Your task to perform on an android device: turn off location Image 0: 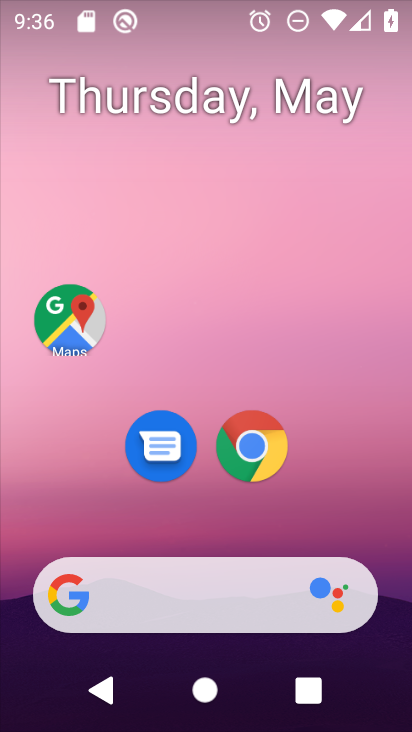
Step 0: drag from (343, 516) to (391, 143)
Your task to perform on an android device: turn off location Image 1: 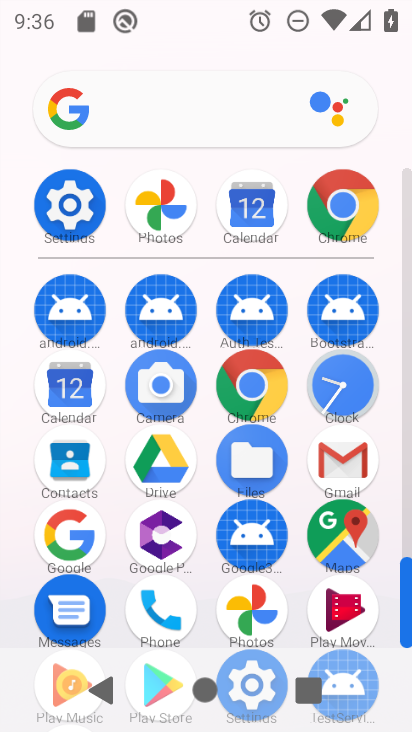
Step 1: click (88, 209)
Your task to perform on an android device: turn off location Image 2: 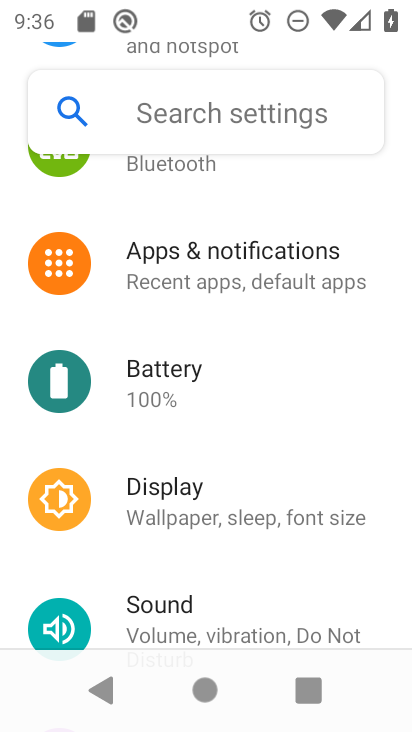
Step 2: drag from (327, 604) to (331, 304)
Your task to perform on an android device: turn off location Image 3: 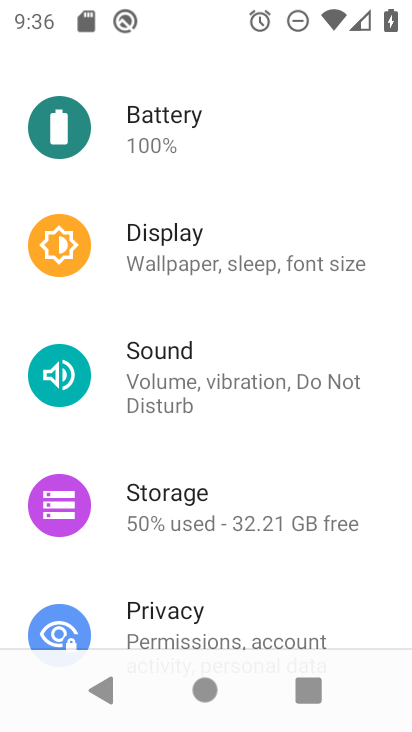
Step 3: drag from (287, 271) to (295, 525)
Your task to perform on an android device: turn off location Image 4: 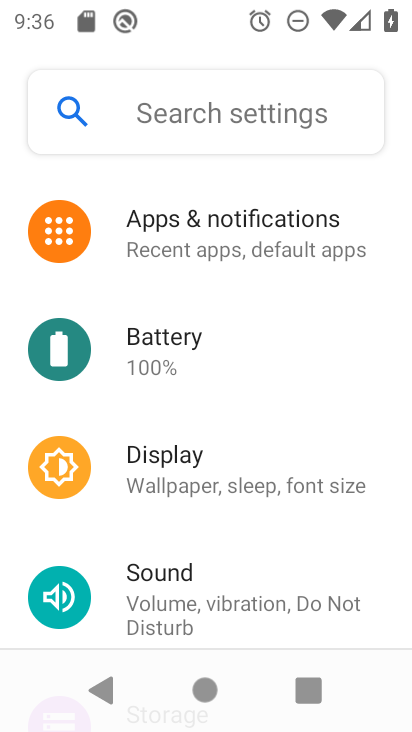
Step 4: drag from (269, 553) to (305, 227)
Your task to perform on an android device: turn off location Image 5: 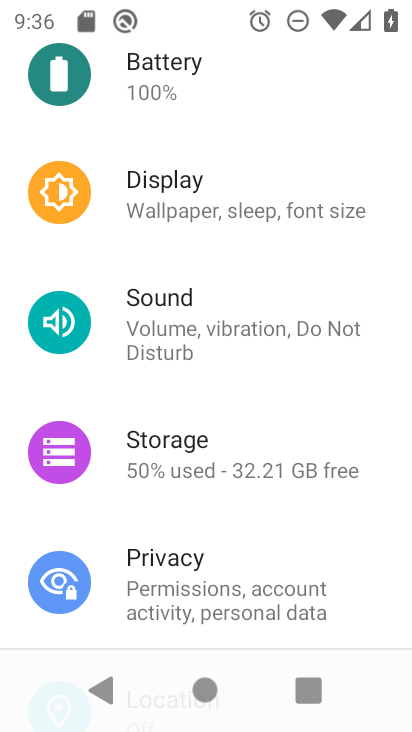
Step 5: drag from (323, 552) to (328, 208)
Your task to perform on an android device: turn off location Image 6: 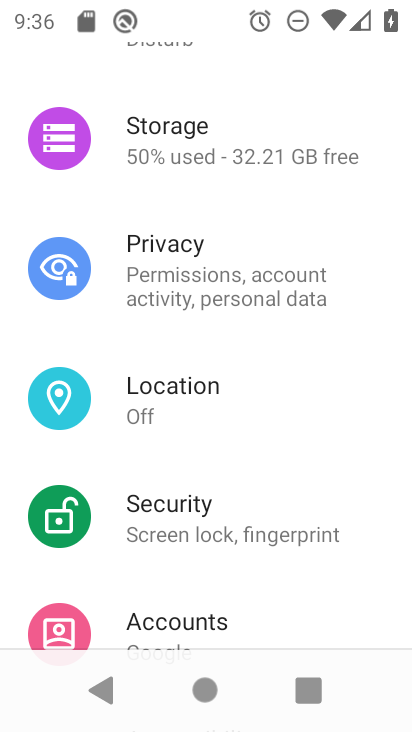
Step 6: click (196, 412)
Your task to perform on an android device: turn off location Image 7: 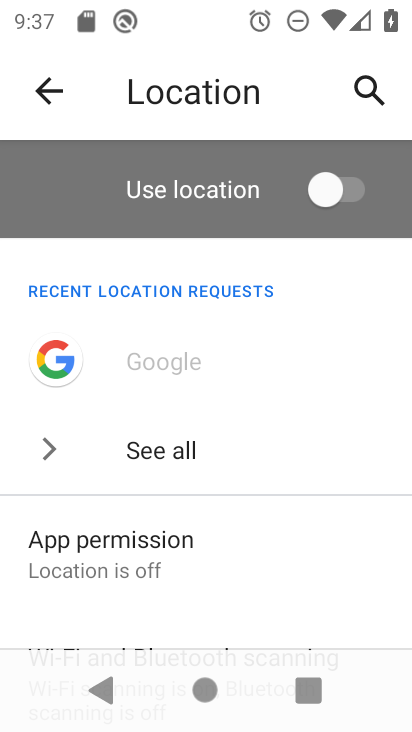
Step 7: task complete